Your task to perform on an android device: open a new tab in the chrome app Image 0: 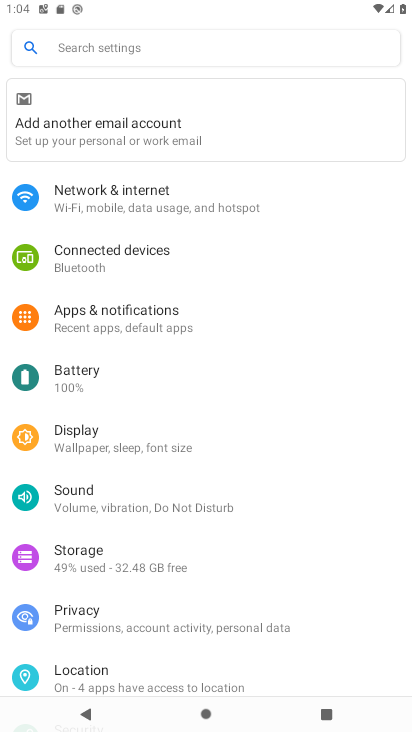
Step 0: press home button
Your task to perform on an android device: open a new tab in the chrome app Image 1: 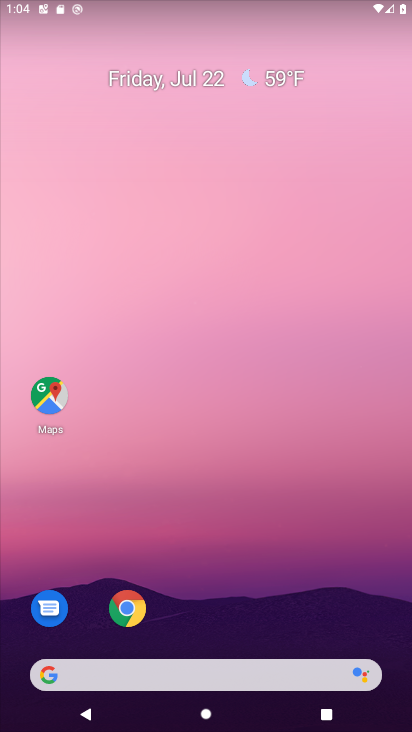
Step 1: drag from (196, 628) to (173, 150)
Your task to perform on an android device: open a new tab in the chrome app Image 2: 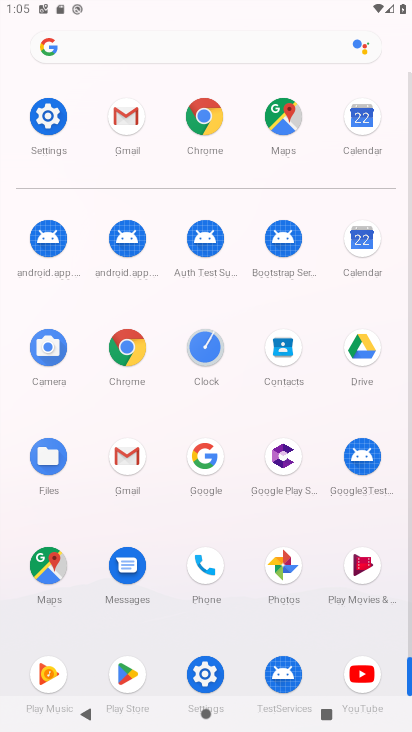
Step 2: click (132, 370)
Your task to perform on an android device: open a new tab in the chrome app Image 3: 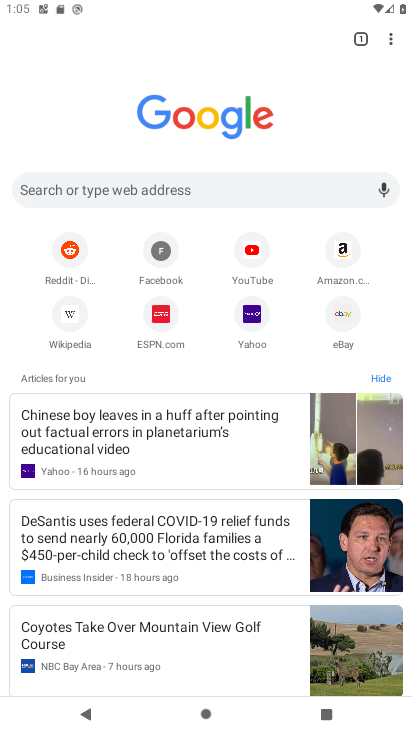
Step 3: click (392, 44)
Your task to perform on an android device: open a new tab in the chrome app Image 4: 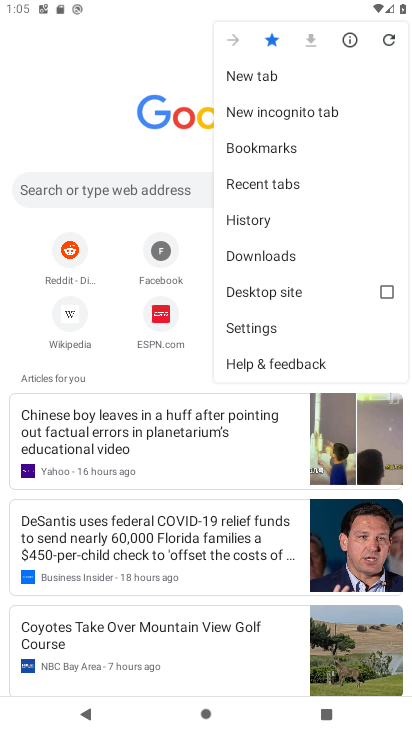
Step 4: click (241, 72)
Your task to perform on an android device: open a new tab in the chrome app Image 5: 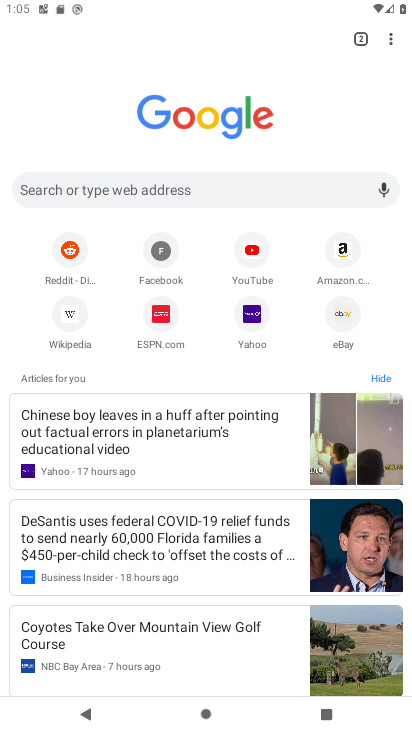
Step 5: task complete